Your task to perform on an android device: Go to sound settings Image 0: 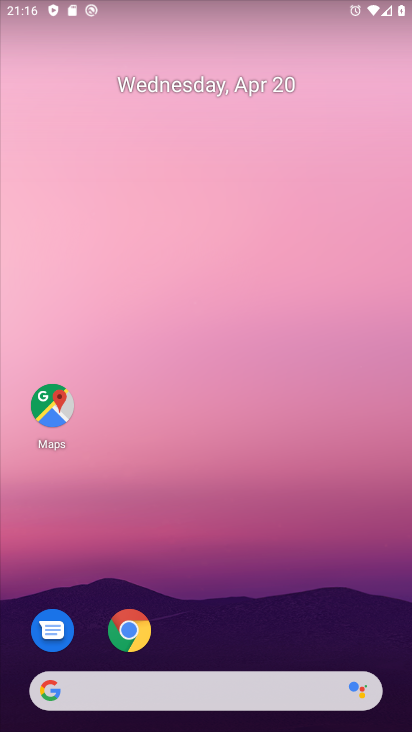
Step 0: drag from (225, 634) to (196, 160)
Your task to perform on an android device: Go to sound settings Image 1: 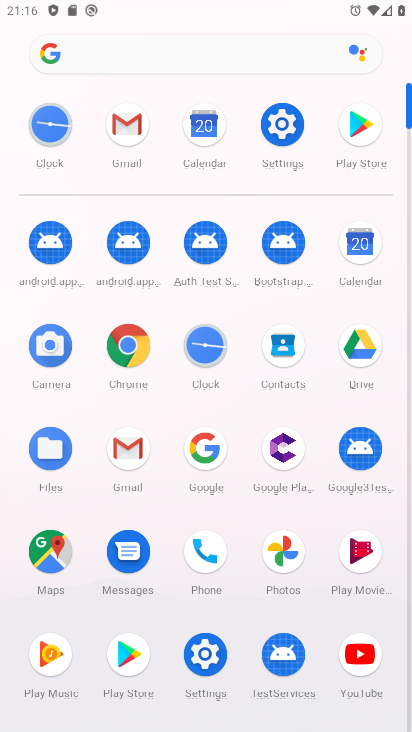
Step 1: click (291, 126)
Your task to perform on an android device: Go to sound settings Image 2: 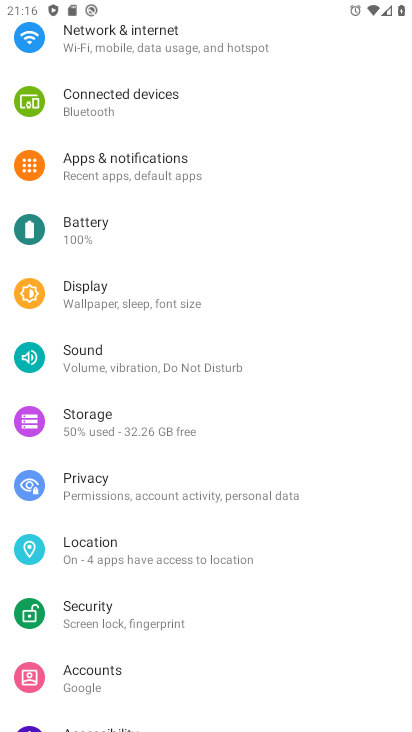
Step 2: click (131, 362)
Your task to perform on an android device: Go to sound settings Image 3: 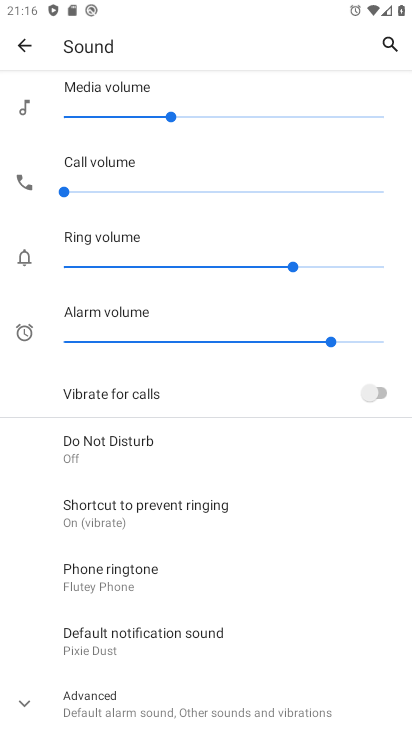
Step 3: task complete